Your task to perform on an android device: Do I have any events this weekend? Image 0: 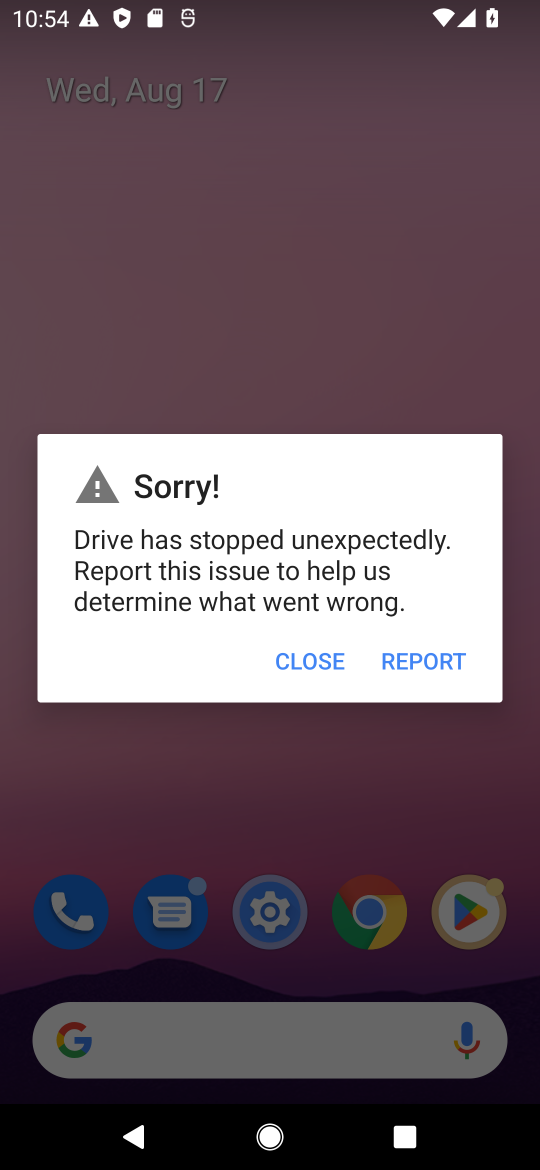
Step 0: press home button
Your task to perform on an android device: Do I have any events this weekend? Image 1: 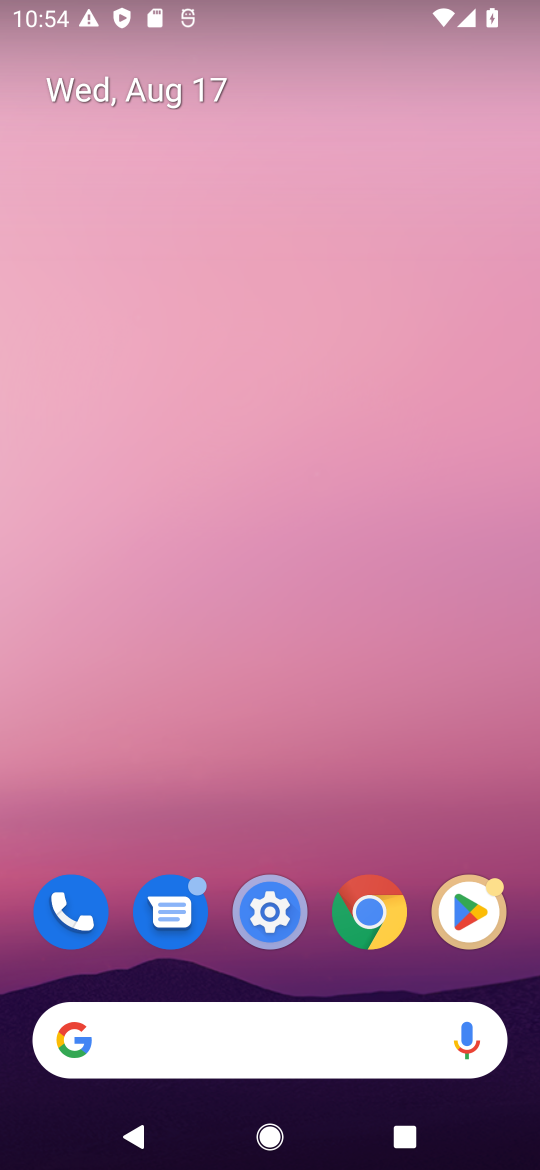
Step 1: drag from (24, 1004) to (317, 174)
Your task to perform on an android device: Do I have any events this weekend? Image 2: 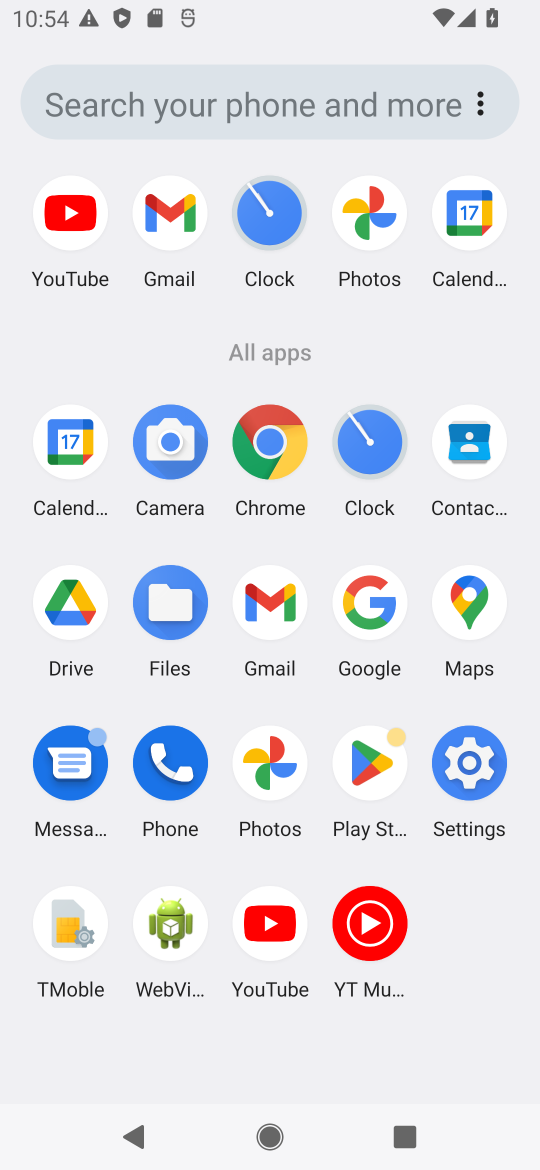
Step 2: click (502, 737)
Your task to perform on an android device: Do I have any events this weekend? Image 3: 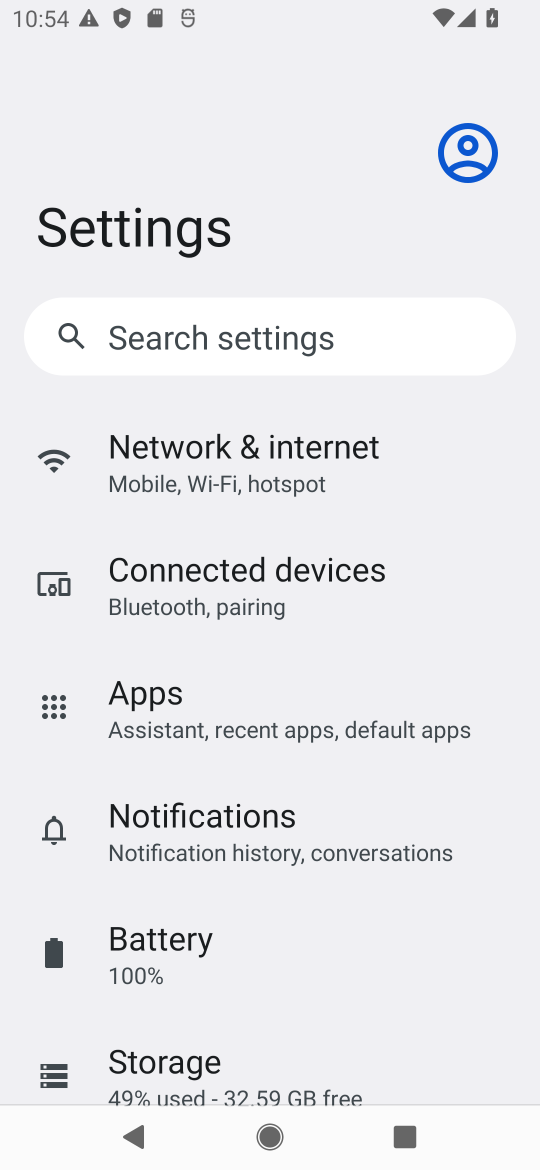
Step 3: press back button
Your task to perform on an android device: Do I have any events this weekend? Image 4: 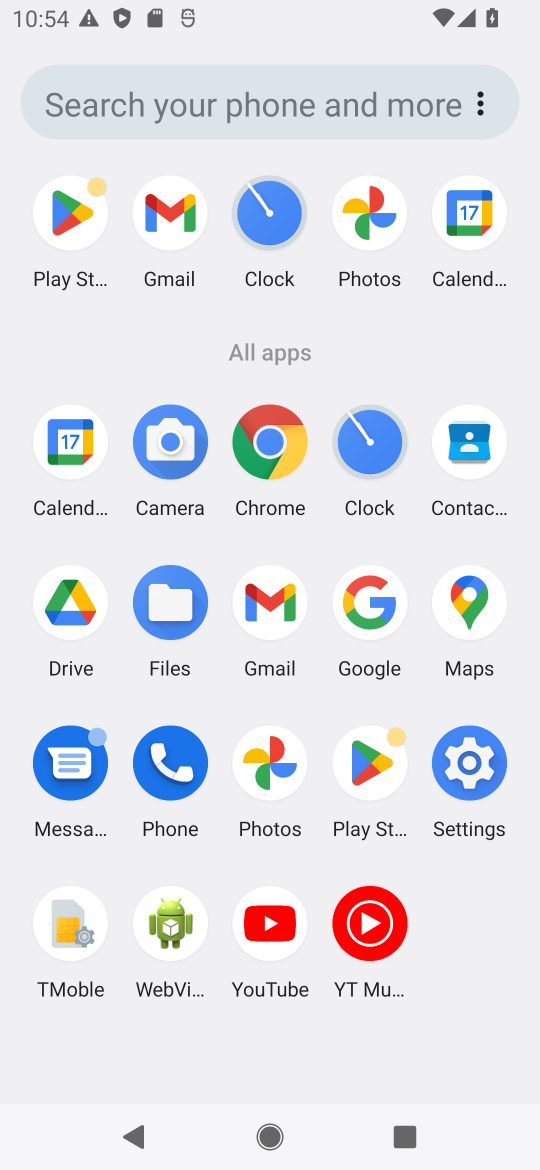
Step 4: click (82, 439)
Your task to perform on an android device: Do I have any events this weekend? Image 5: 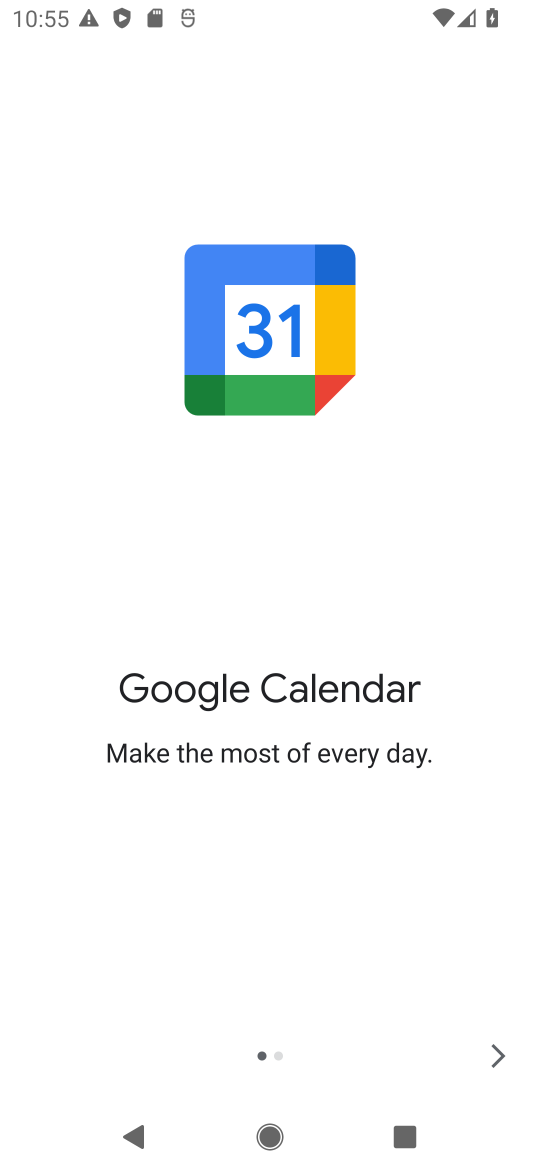
Step 5: click (495, 1065)
Your task to perform on an android device: Do I have any events this weekend? Image 6: 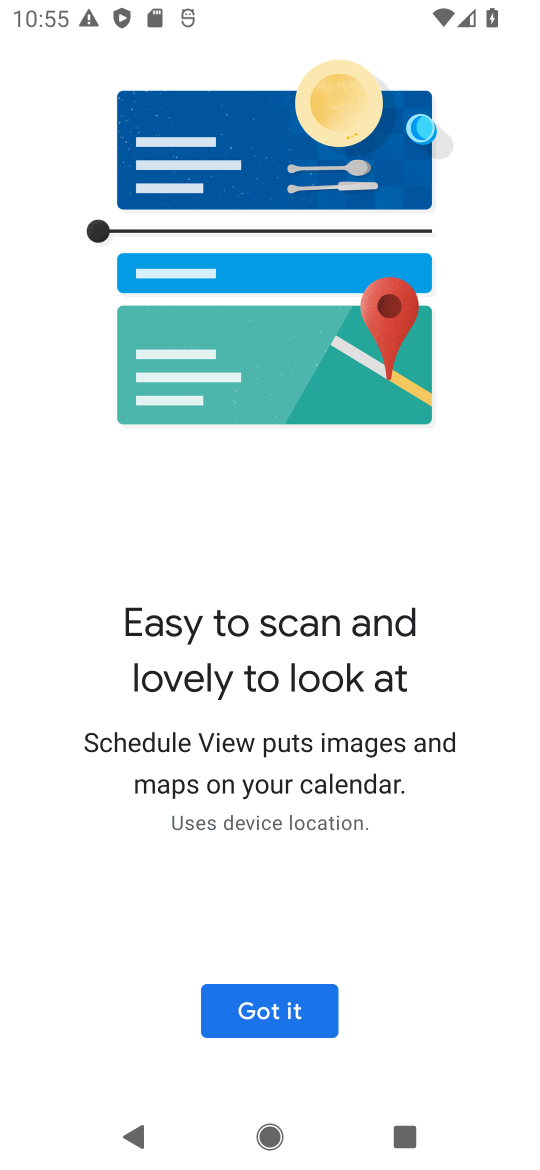
Step 6: click (267, 1000)
Your task to perform on an android device: Do I have any events this weekend? Image 7: 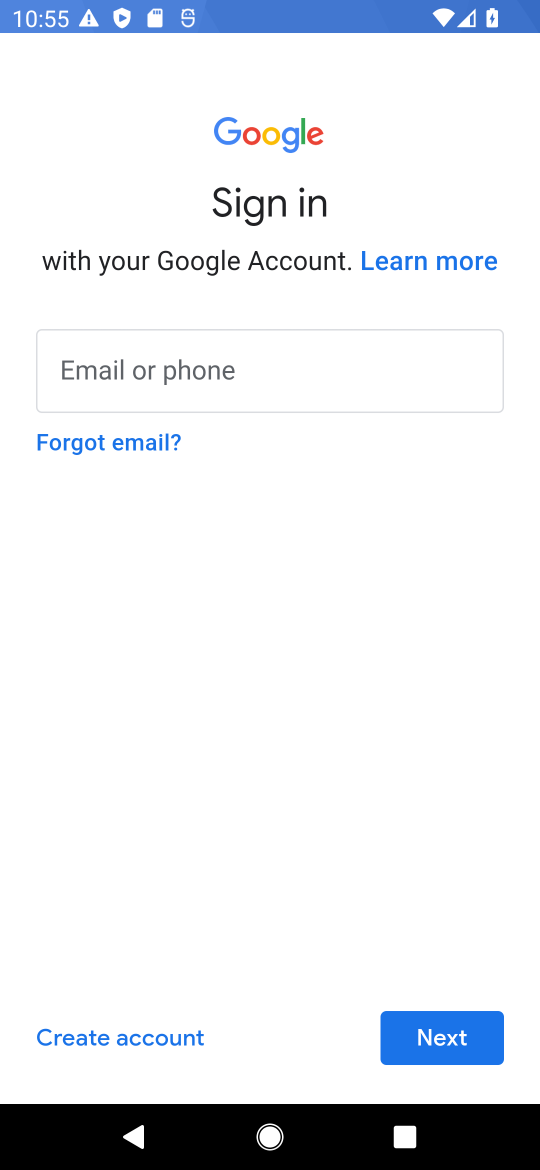
Step 7: task complete